Your task to perform on an android device: Go to notification settings Image 0: 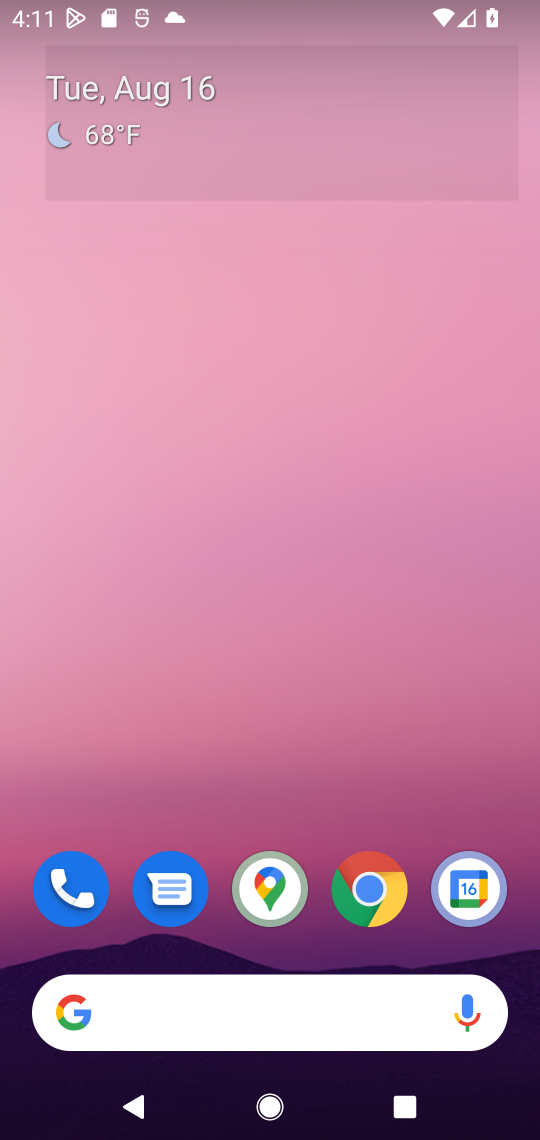
Step 0: drag from (296, 750) to (302, 38)
Your task to perform on an android device: Go to notification settings Image 1: 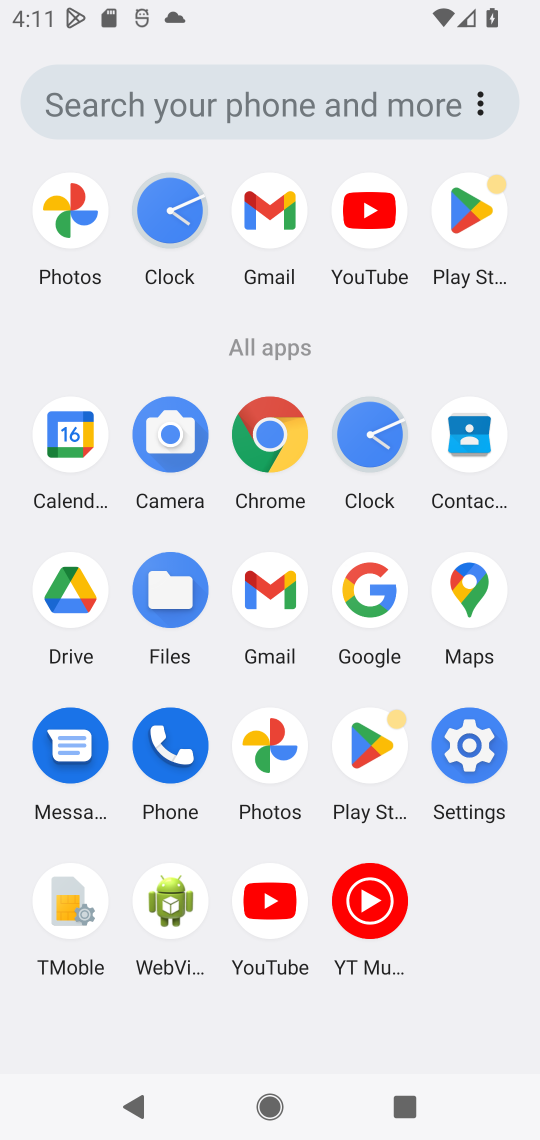
Step 1: click (473, 789)
Your task to perform on an android device: Go to notification settings Image 2: 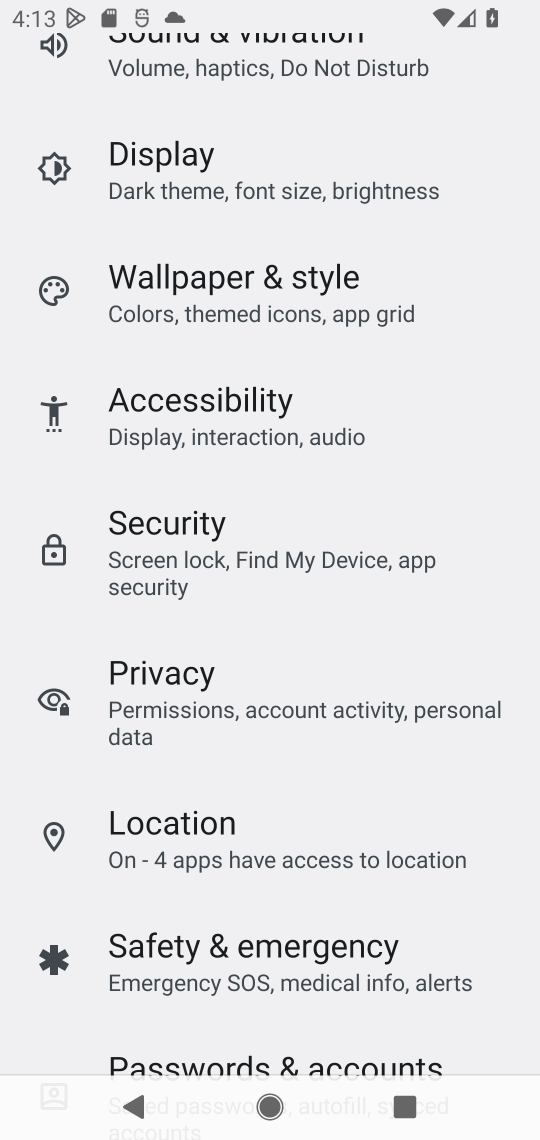
Step 2: task complete